Your task to perform on an android device: Go to calendar. Show me events next week Image 0: 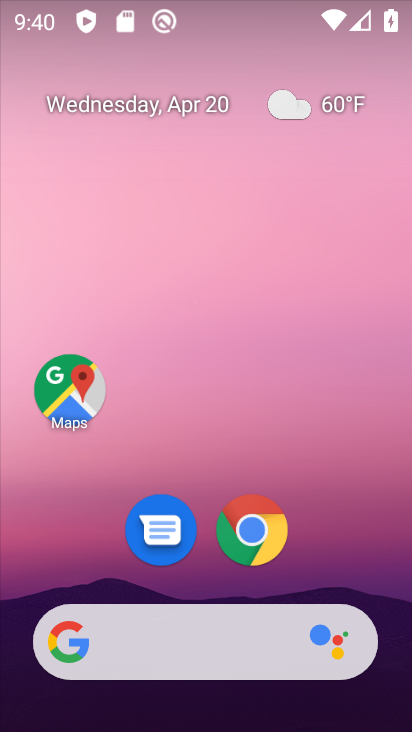
Step 0: drag from (341, 503) to (316, 86)
Your task to perform on an android device: Go to calendar. Show me events next week Image 1: 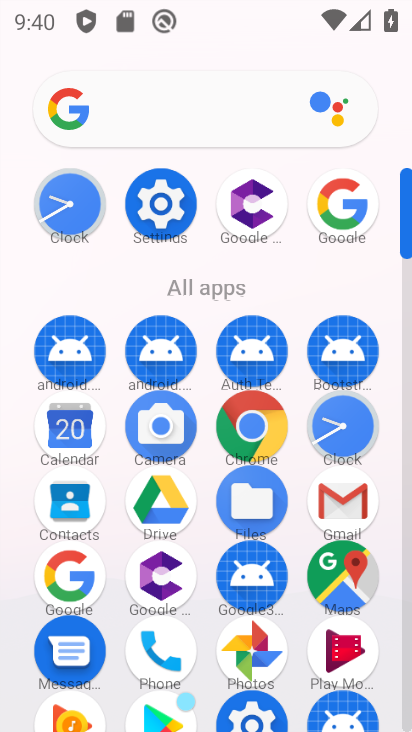
Step 1: click (74, 430)
Your task to perform on an android device: Go to calendar. Show me events next week Image 2: 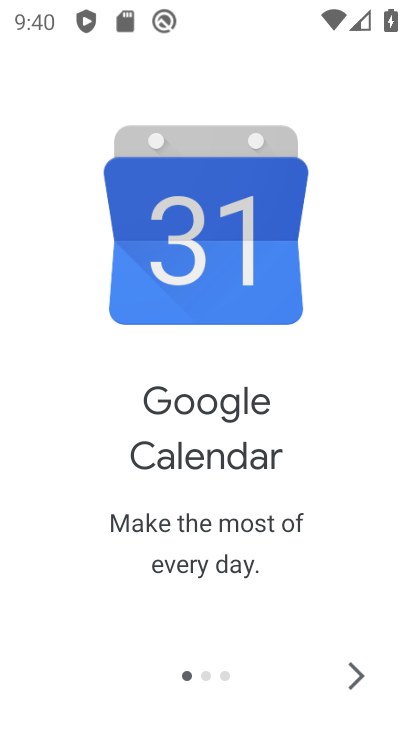
Step 2: click (355, 684)
Your task to perform on an android device: Go to calendar. Show me events next week Image 3: 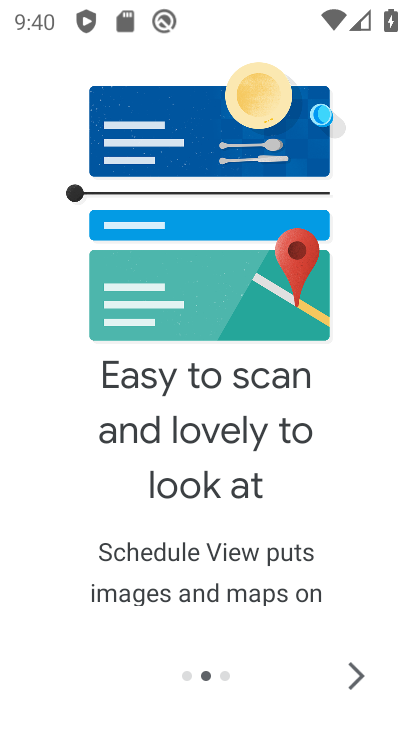
Step 3: click (355, 668)
Your task to perform on an android device: Go to calendar. Show me events next week Image 4: 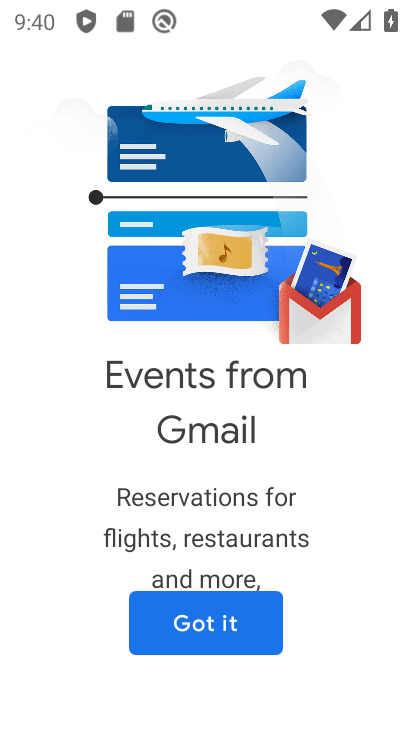
Step 4: click (257, 611)
Your task to perform on an android device: Go to calendar. Show me events next week Image 5: 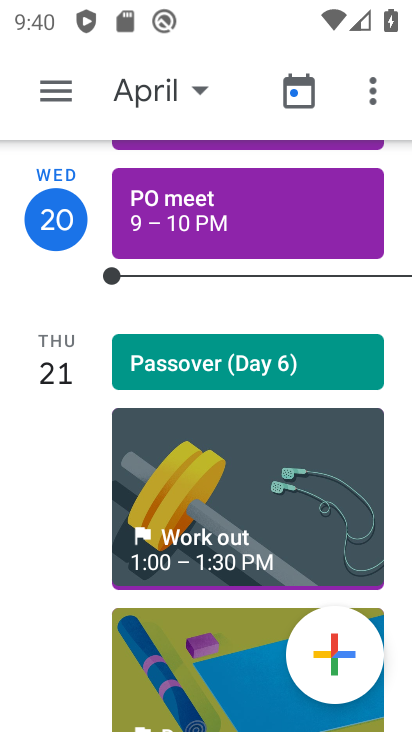
Step 5: click (59, 89)
Your task to perform on an android device: Go to calendar. Show me events next week Image 6: 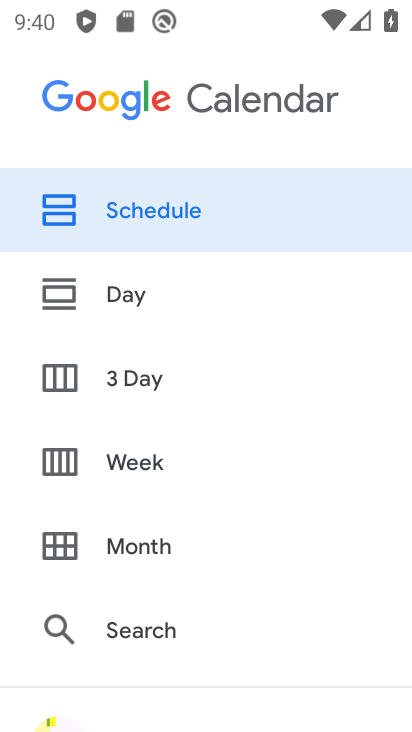
Step 6: click (69, 459)
Your task to perform on an android device: Go to calendar. Show me events next week Image 7: 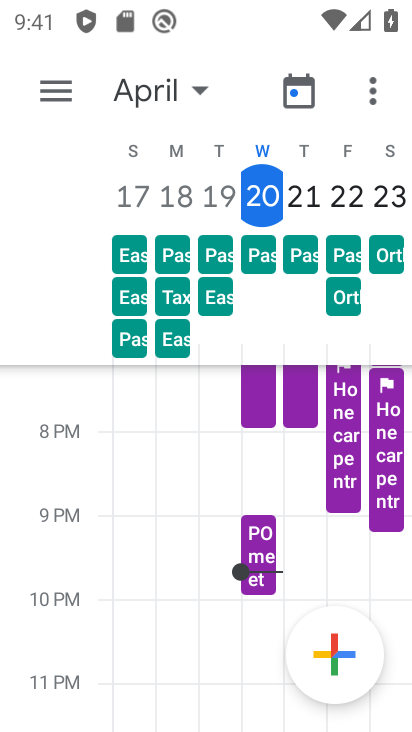
Step 7: task complete